Your task to perform on an android device: Open Google Chrome and click the shortcut for Amazon.com Image 0: 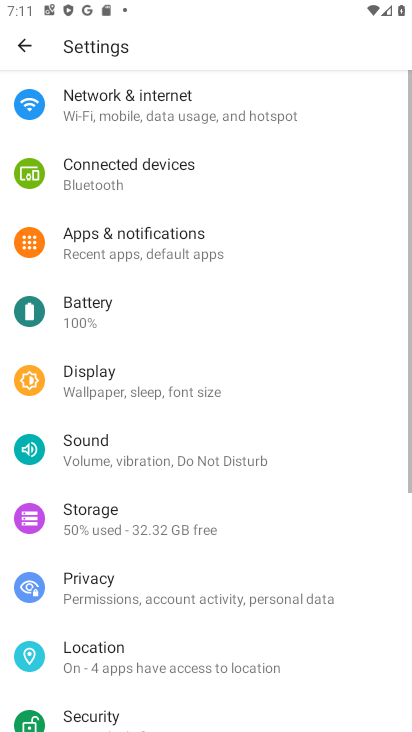
Step 0: press home button
Your task to perform on an android device: Open Google Chrome and click the shortcut for Amazon.com Image 1: 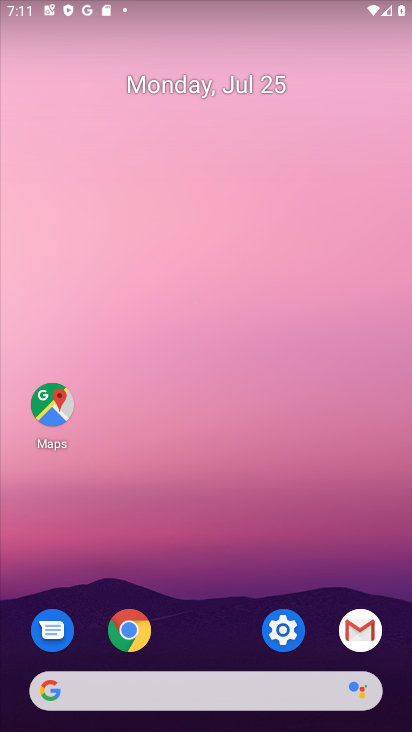
Step 1: click (141, 624)
Your task to perform on an android device: Open Google Chrome and click the shortcut for Amazon.com Image 2: 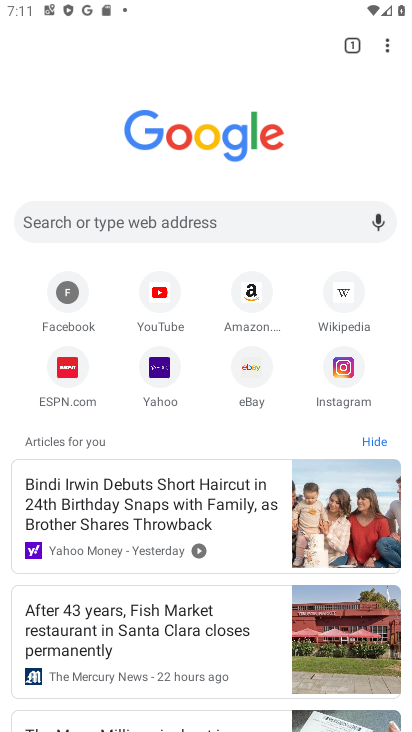
Step 2: click (247, 295)
Your task to perform on an android device: Open Google Chrome and click the shortcut for Amazon.com Image 3: 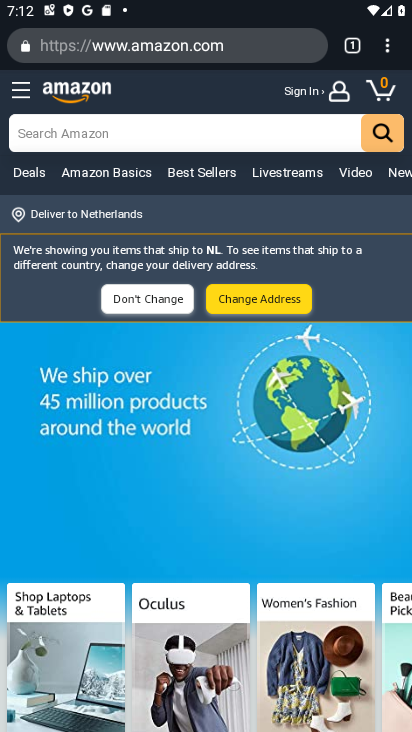
Step 3: click (380, 53)
Your task to perform on an android device: Open Google Chrome and click the shortcut for Amazon.com Image 4: 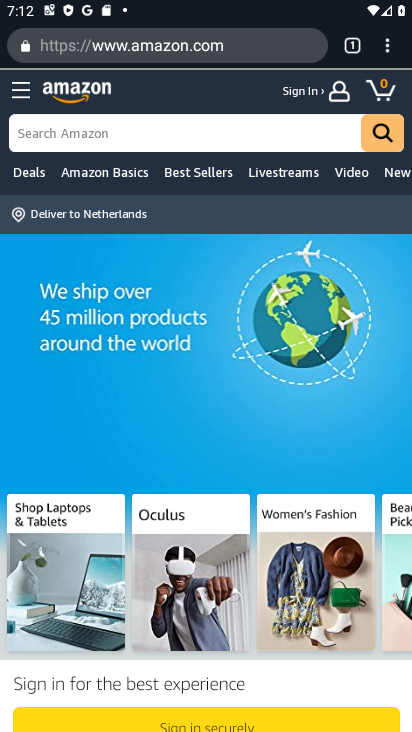
Step 4: click (392, 60)
Your task to perform on an android device: Open Google Chrome and click the shortcut for Amazon.com Image 5: 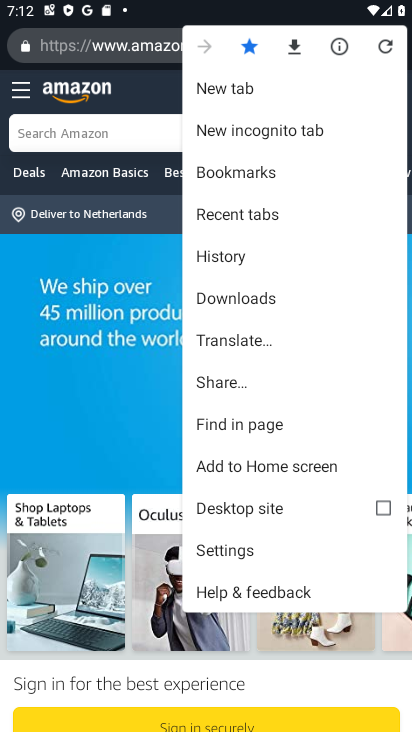
Step 5: click (289, 469)
Your task to perform on an android device: Open Google Chrome and click the shortcut for Amazon.com Image 6: 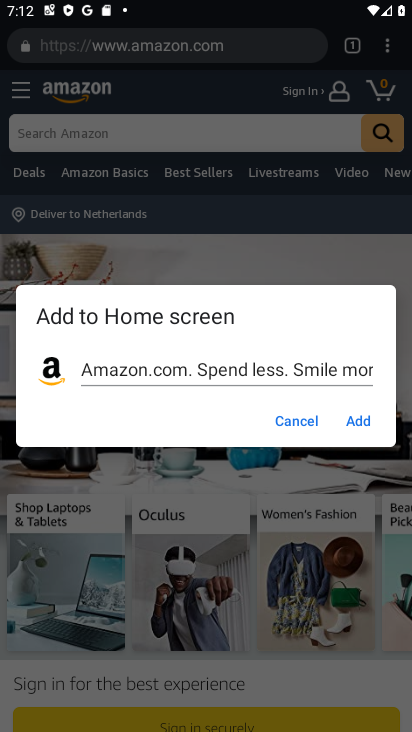
Step 6: click (361, 419)
Your task to perform on an android device: Open Google Chrome and click the shortcut for Amazon.com Image 7: 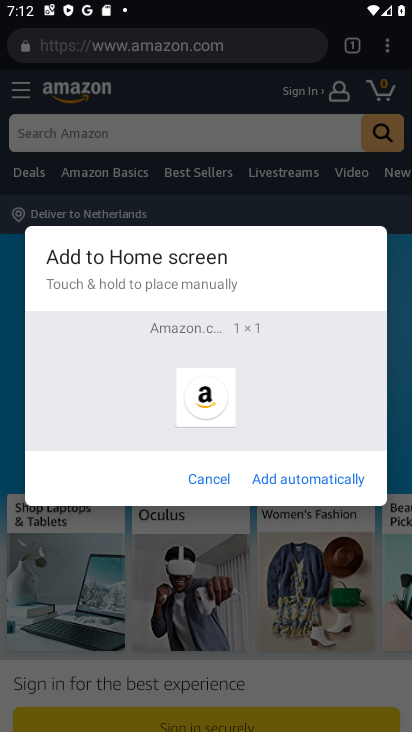
Step 7: click (322, 478)
Your task to perform on an android device: Open Google Chrome and click the shortcut for Amazon.com Image 8: 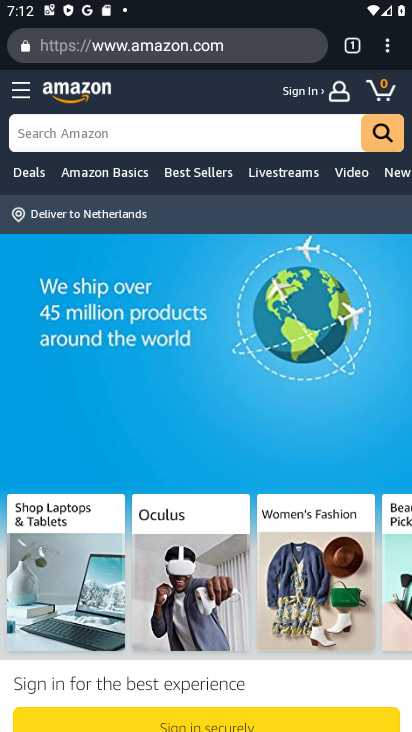
Step 8: task complete